Your task to perform on an android device: Open maps Image 0: 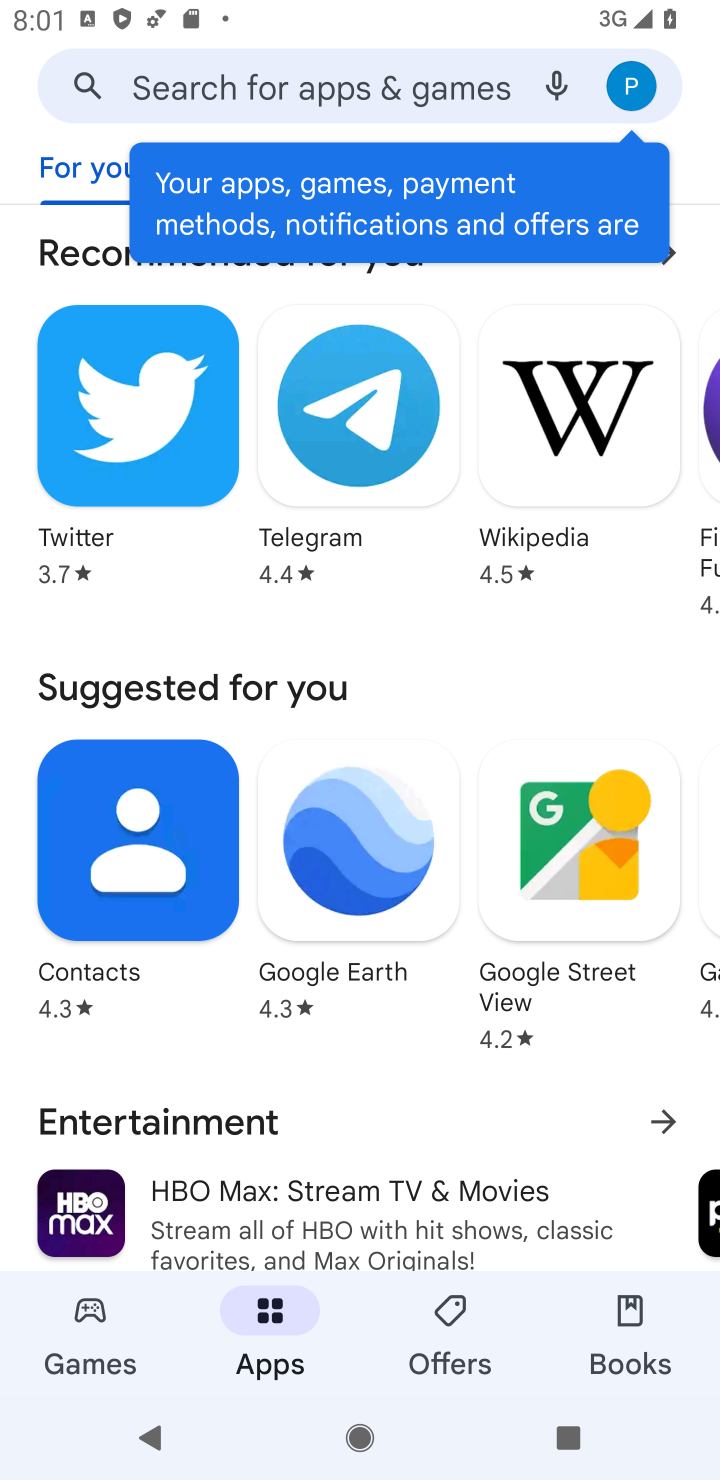
Step 0: press home button
Your task to perform on an android device: Open maps Image 1: 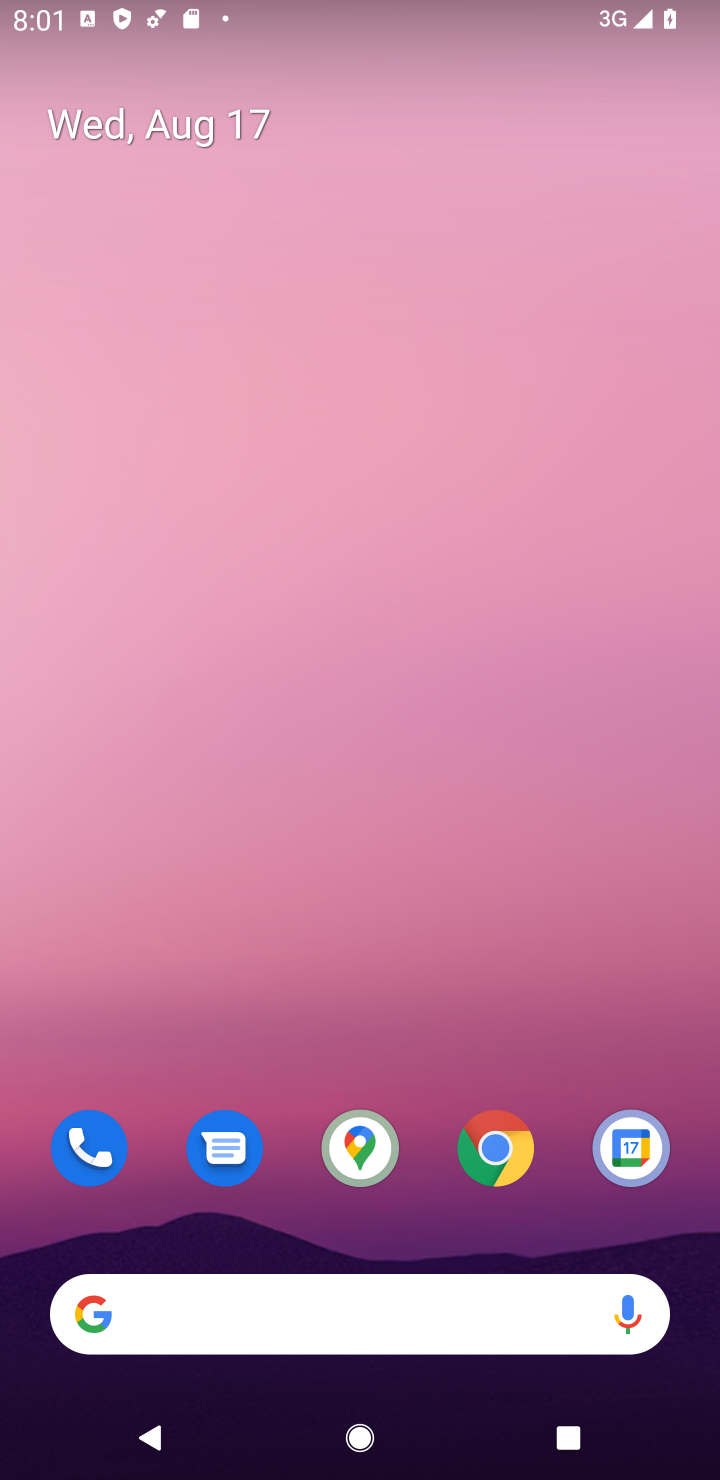
Step 1: click (357, 1145)
Your task to perform on an android device: Open maps Image 2: 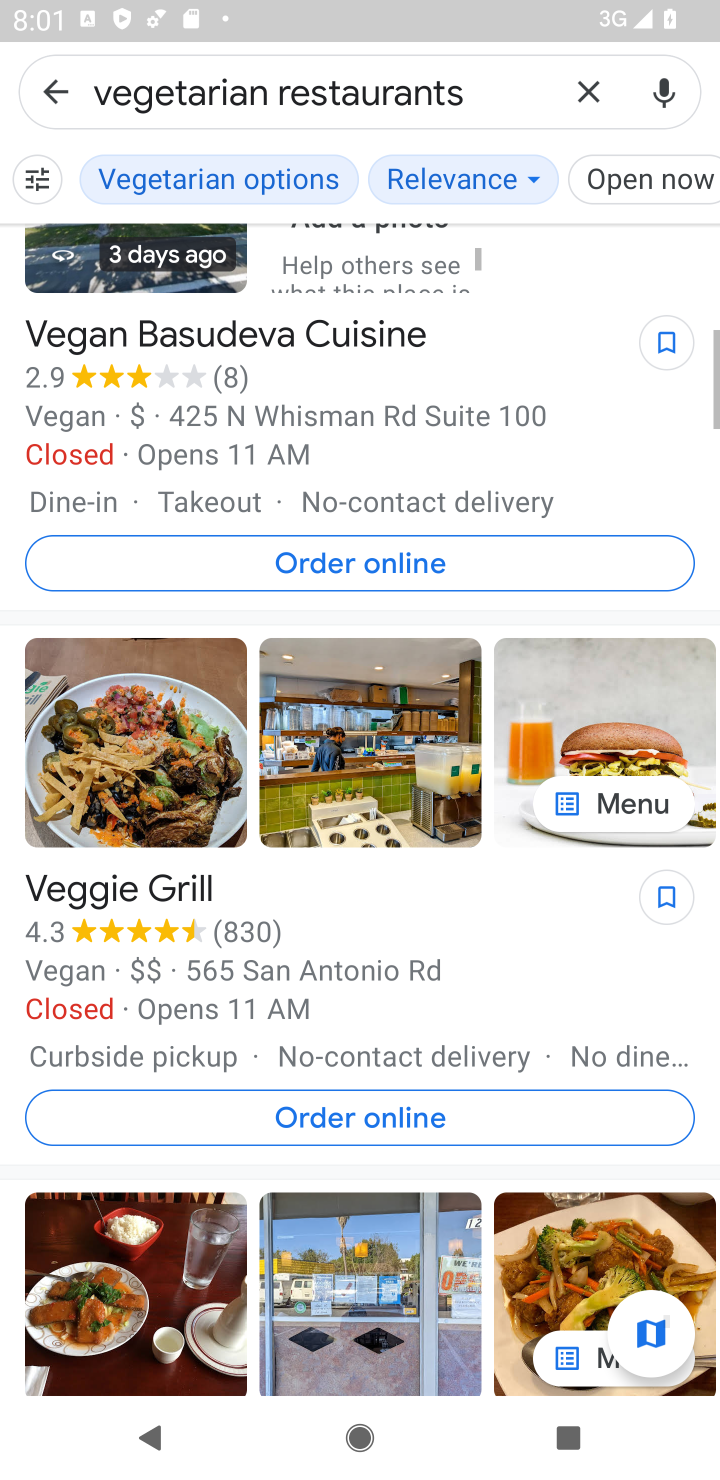
Step 2: click (593, 86)
Your task to perform on an android device: Open maps Image 3: 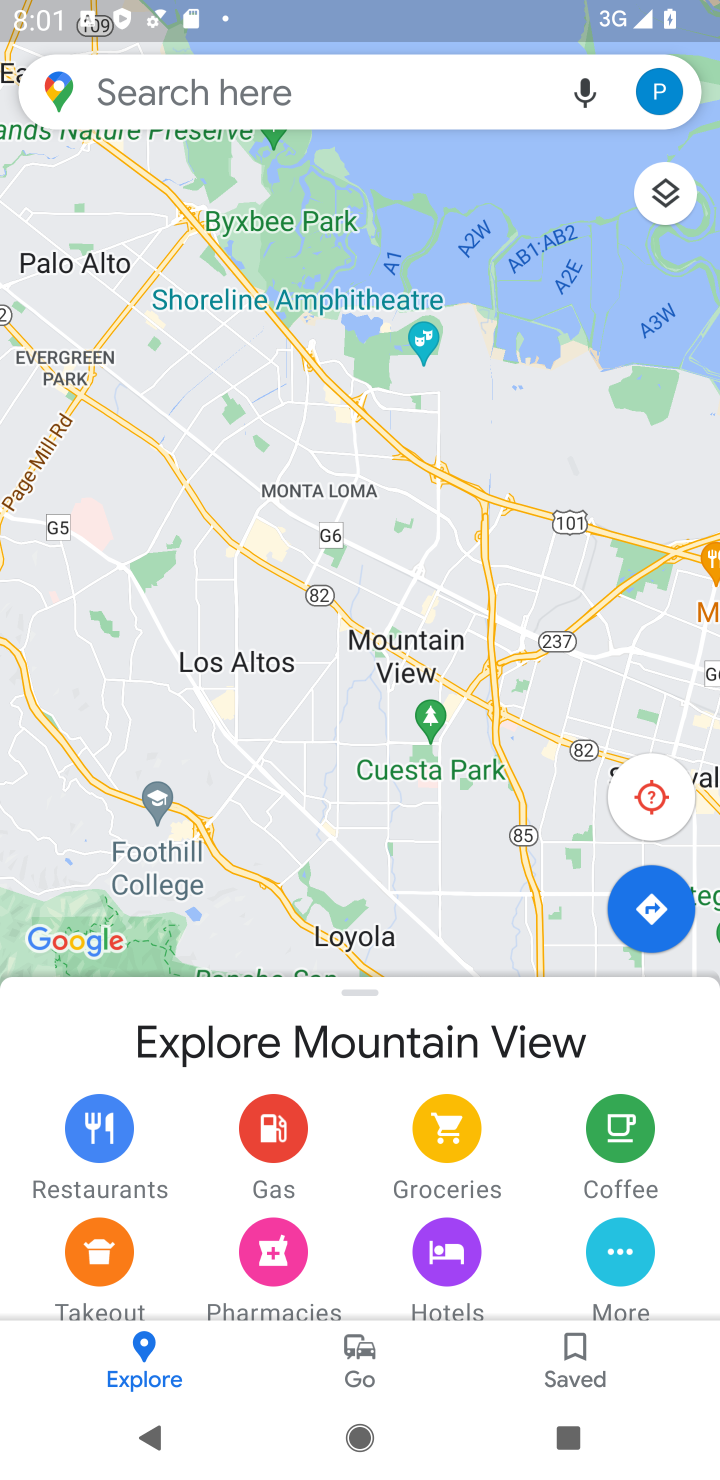
Step 3: task complete